Your task to perform on an android device: change keyboard looks Image 0: 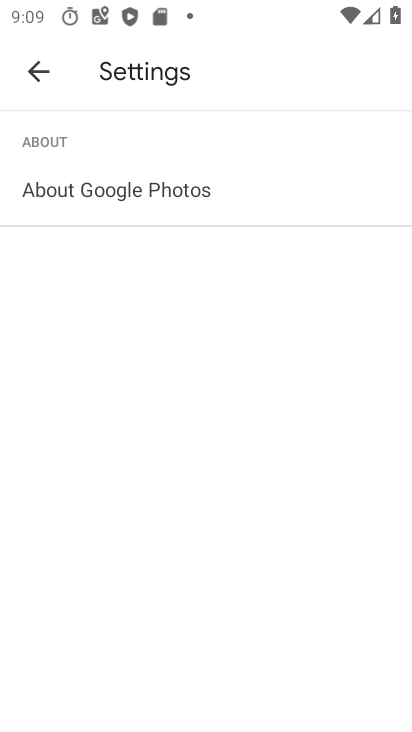
Step 0: press home button
Your task to perform on an android device: change keyboard looks Image 1: 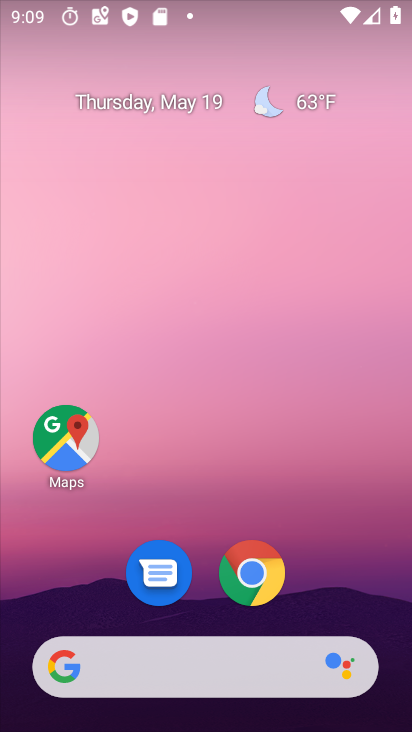
Step 1: drag from (335, 629) to (295, 9)
Your task to perform on an android device: change keyboard looks Image 2: 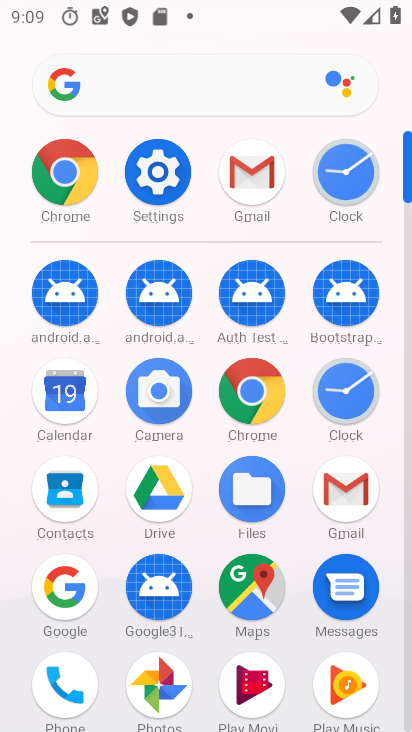
Step 2: click (161, 169)
Your task to perform on an android device: change keyboard looks Image 3: 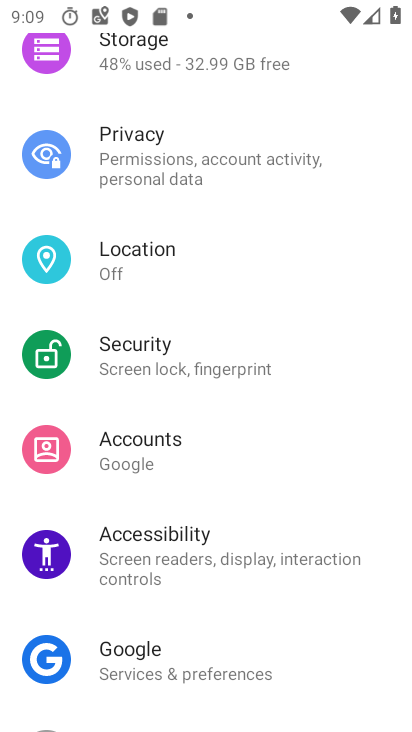
Step 3: drag from (274, 559) to (261, 221)
Your task to perform on an android device: change keyboard looks Image 4: 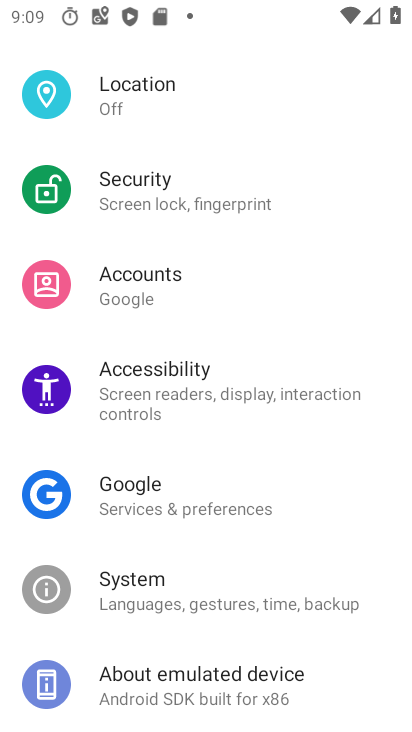
Step 4: click (127, 581)
Your task to perform on an android device: change keyboard looks Image 5: 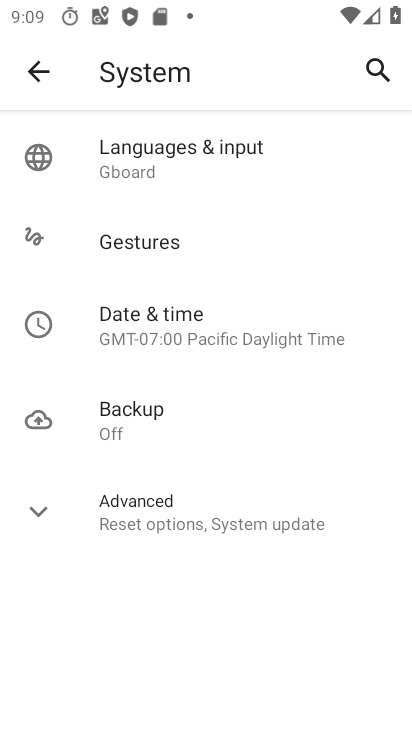
Step 5: click (138, 172)
Your task to perform on an android device: change keyboard looks Image 6: 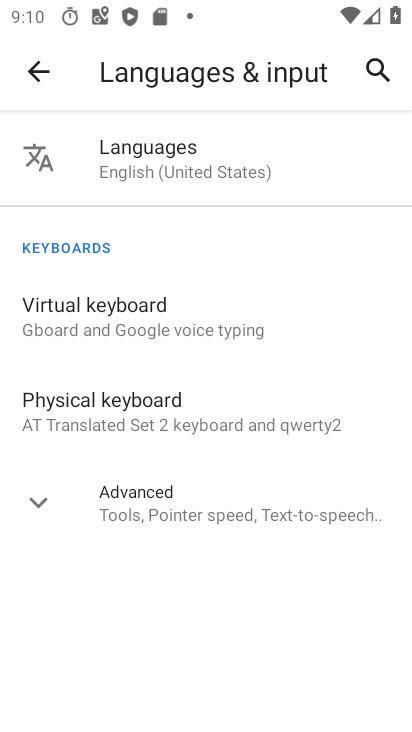
Step 6: click (68, 323)
Your task to perform on an android device: change keyboard looks Image 7: 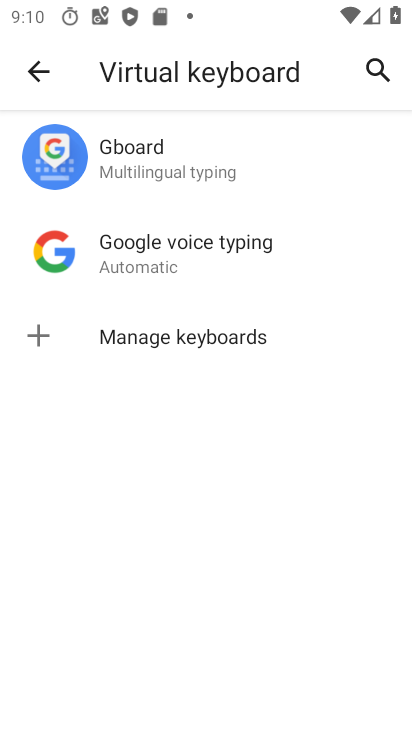
Step 7: click (110, 168)
Your task to perform on an android device: change keyboard looks Image 8: 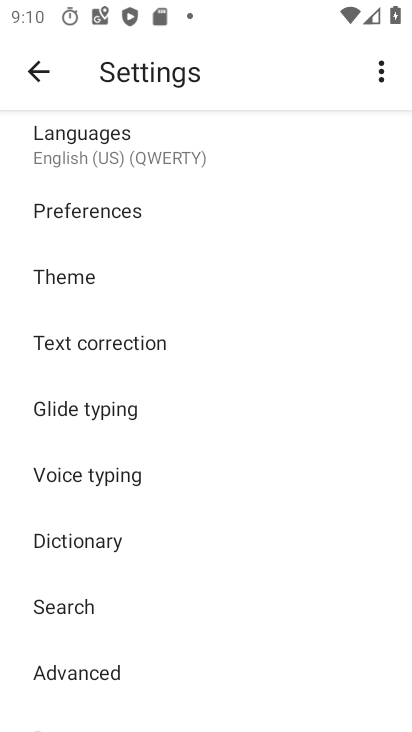
Step 8: click (54, 291)
Your task to perform on an android device: change keyboard looks Image 9: 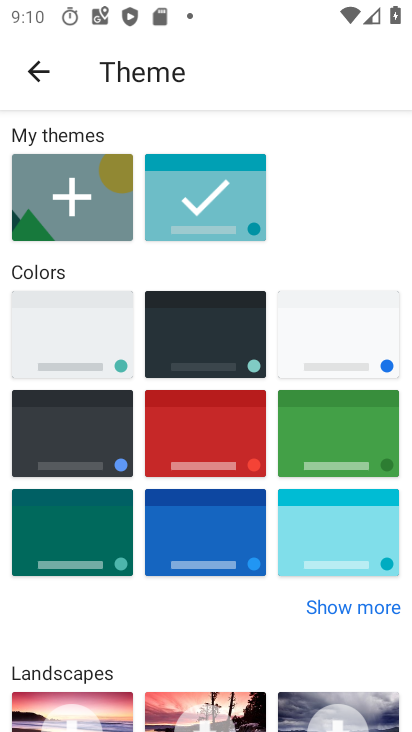
Step 9: click (367, 537)
Your task to perform on an android device: change keyboard looks Image 10: 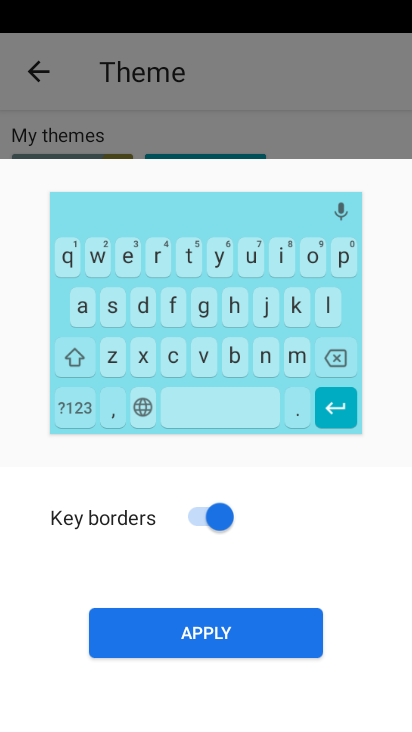
Step 10: click (203, 624)
Your task to perform on an android device: change keyboard looks Image 11: 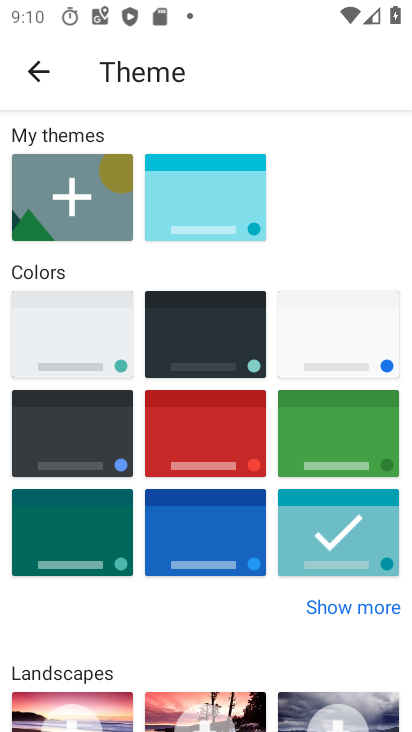
Step 11: task complete